Your task to perform on an android device: Find coffee shops on Maps Image 0: 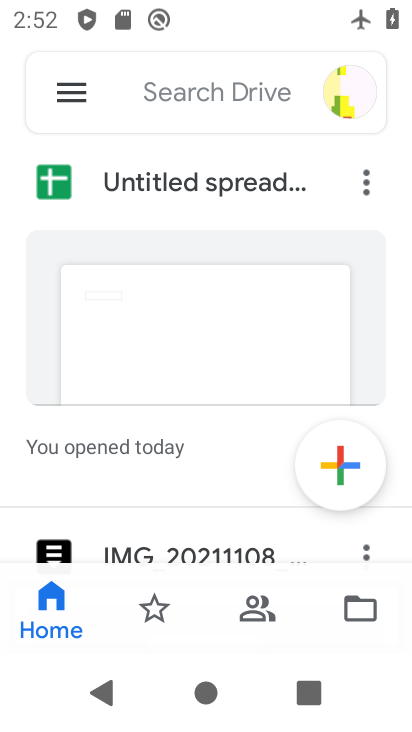
Step 0: press home button
Your task to perform on an android device: Find coffee shops on Maps Image 1: 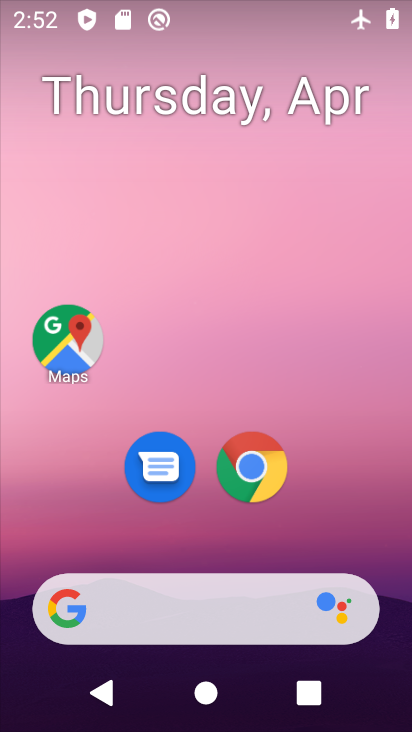
Step 1: click (60, 344)
Your task to perform on an android device: Find coffee shops on Maps Image 2: 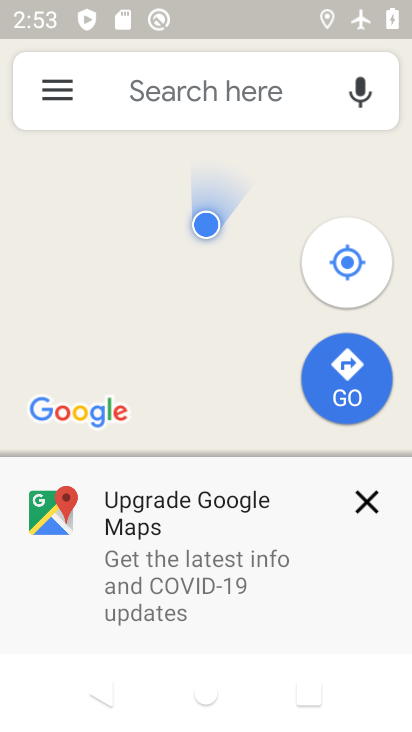
Step 2: click (365, 498)
Your task to perform on an android device: Find coffee shops on Maps Image 3: 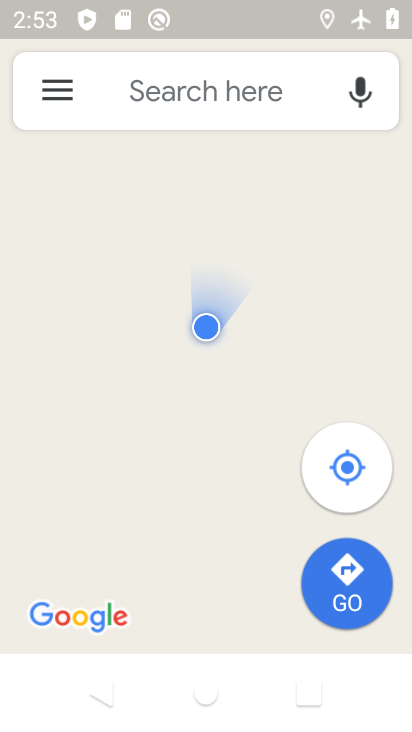
Step 3: click (234, 86)
Your task to perform on an android device: Find coffee shops on Maps Image 4: 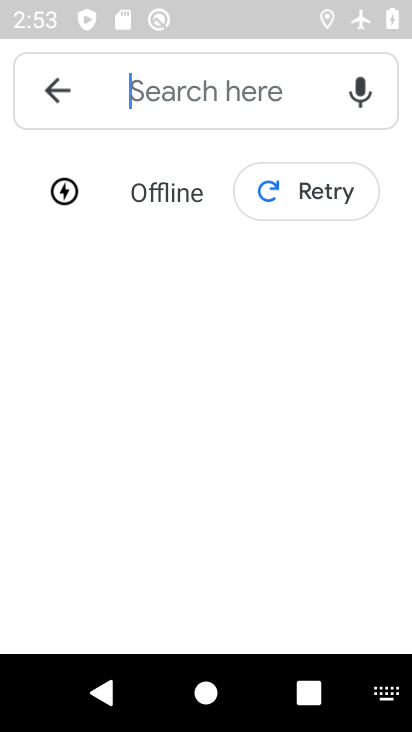
Step 4: task complete